Your task to perform on an android device: Go to battery settings Image 0: 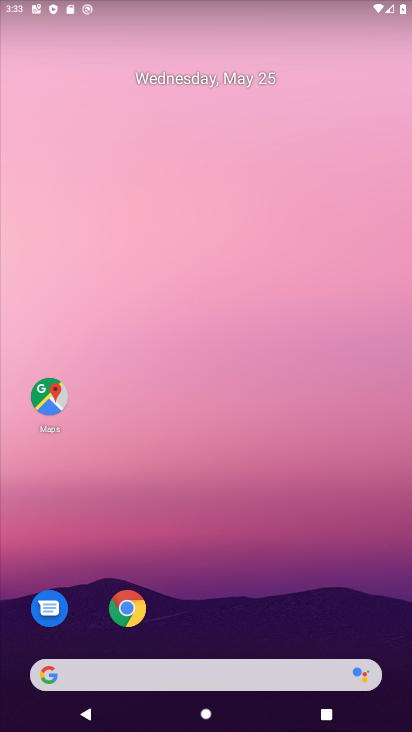
Step 0: drag from (213, 610) to (370, 10)
Your task to perform on an android device: Go to battery settings Image 1: 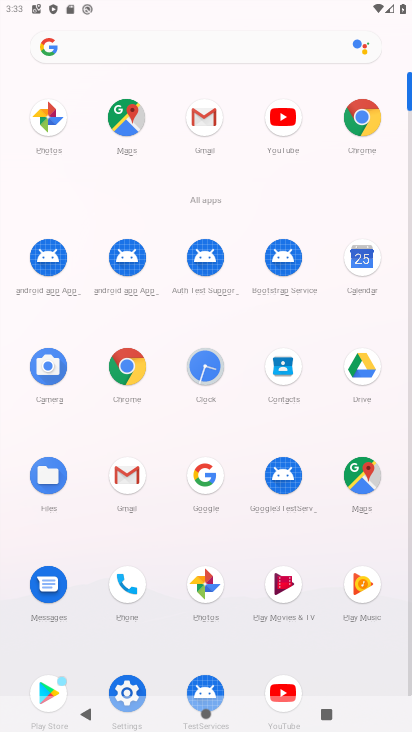
Step 1: click (124, 683)
Your task to perform on an android device: Go to battery settings Image 2: 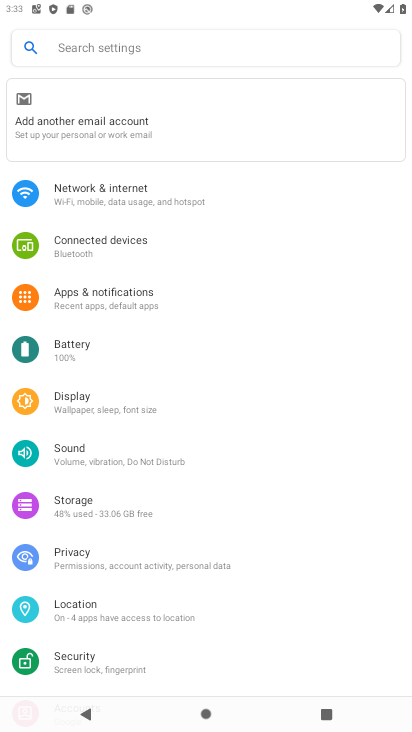
Step 2: click (51, 357)
Your task to perform on an android device: Go to battery settings Image 3: 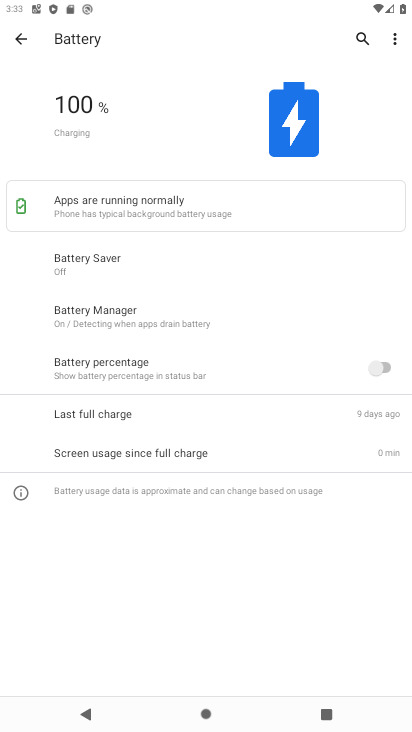
Step 3: task complete